Your task to perform on an android device: Open Youtube and go to the subscriptions tab Image 0: 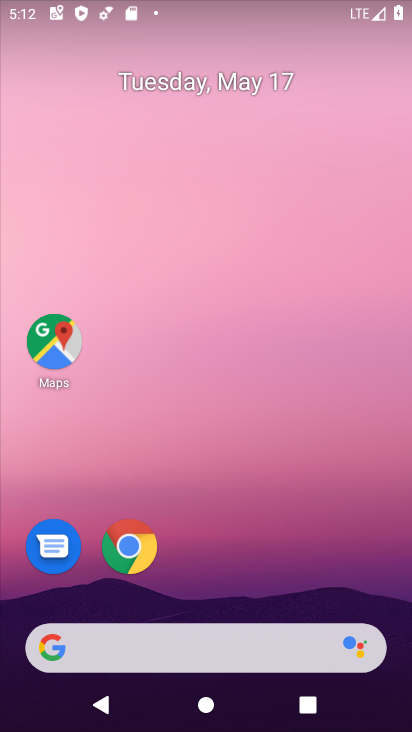
Step 0: drag from (226, 595) to (92, 6)
Your task to perform on an android device: Open Youtube and go to the subscriptions tab Image 1: 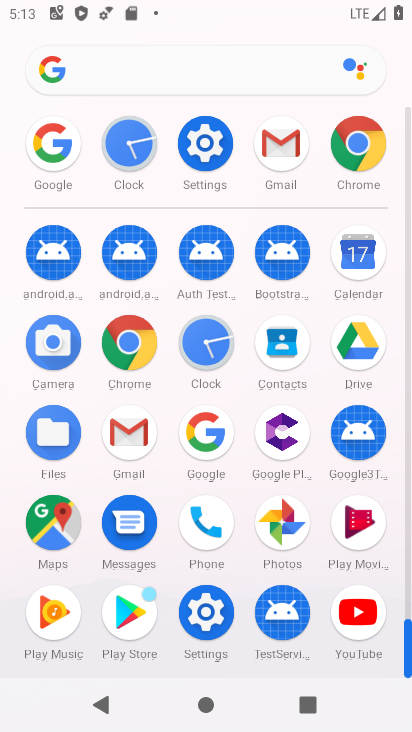
Step 1: click (355, 633)
Your task to perform on an android device: Open Youtube and go to the subscriptions tab Image 2: 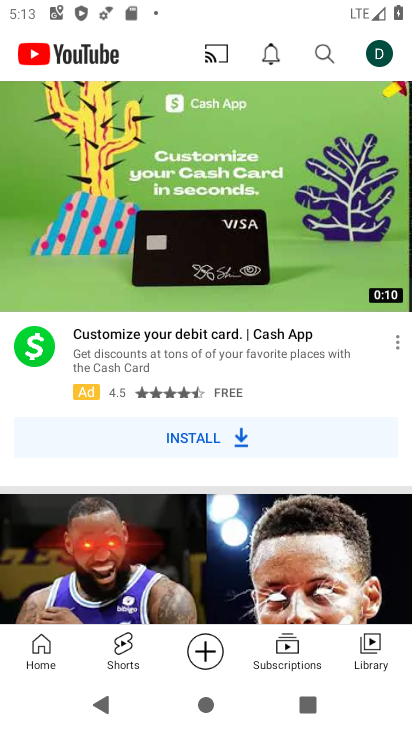
Step 2: click (284, 667)
Your task to perform on an android device: Open Youtube and go to the subscriptions tab Image 3: 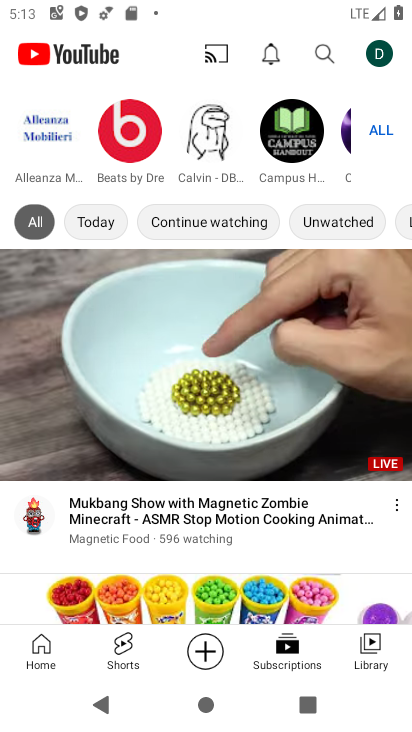
Step 3: task complete